Your task to perform on an android device: open chrome privacy settings Image 0: 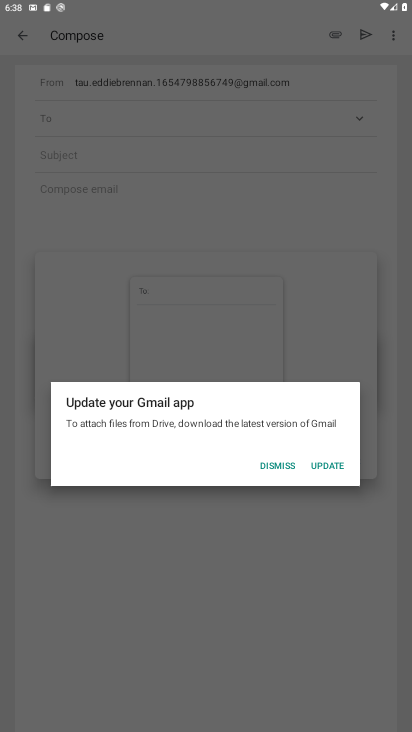
Step 0: press home button
Your task to perform on an android device: open chrome privacy settings Image 1: 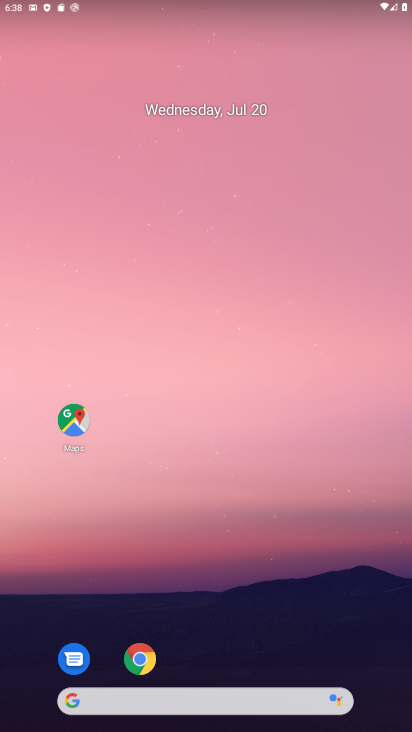
Step 1: click (144, 655)
Your task to perform on an android device: open chrome privacy settings Image 2: 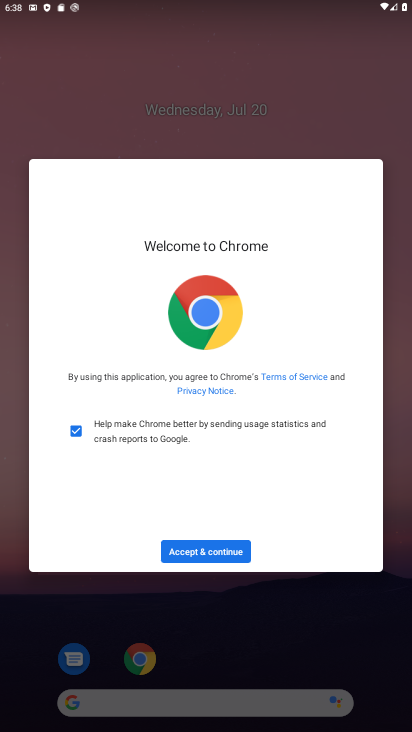
Step 2: click (192, 556)
Your task to perform on an android device: open chrome privacy settings Image 3: 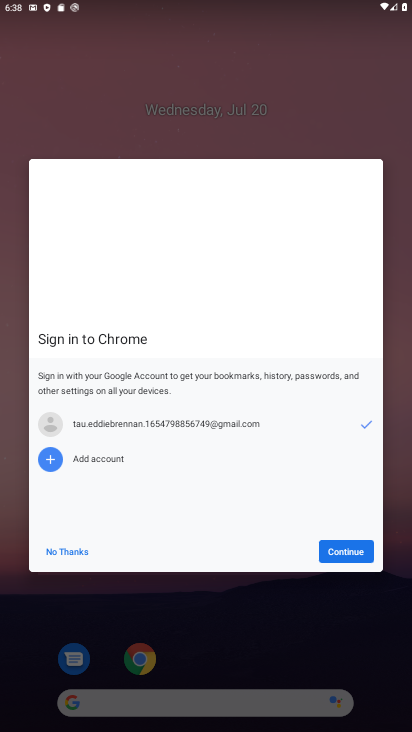
Step 3: click (337, 553)
Your task to perform on an android device: open chrome privacy settings Image 4: 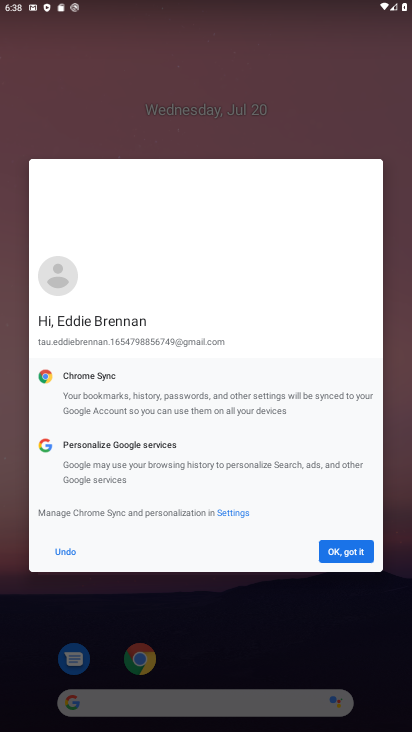
Step 4: click (337, 553)
Your task to perform on an android device: open chrome privacy settings Image 5: 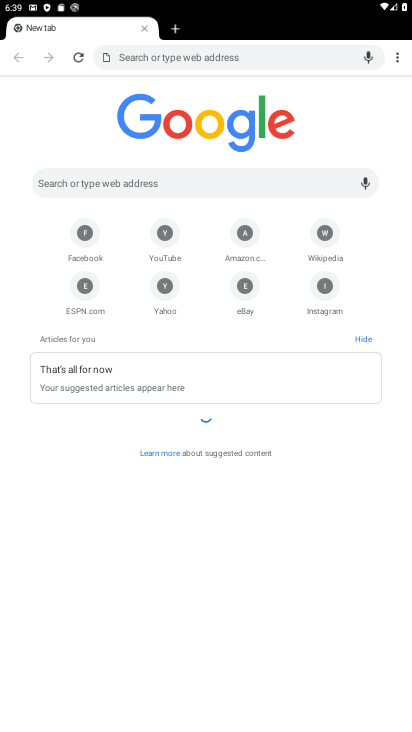
Step 5: click (394, 58)
Your task to perform on an android device: open chrome privacy settings Image 6: 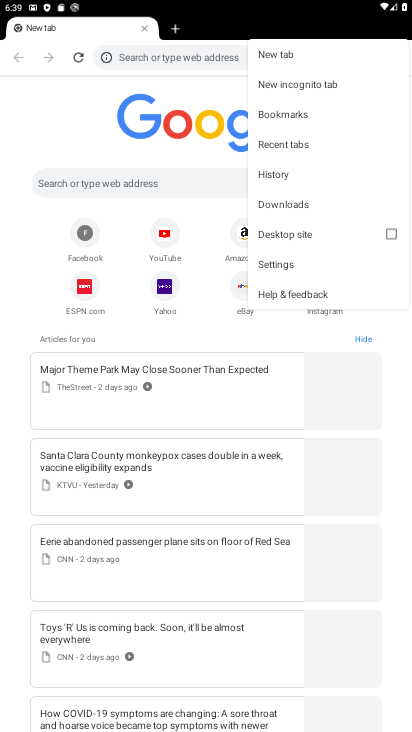
Step 6: click (279, 261)
Your task to perform on an android device: open chrome privacy settings Image 7: 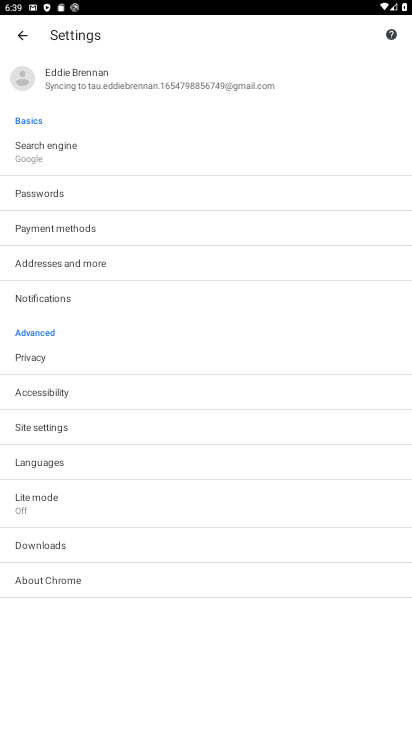
Step 7: click (21, 354)
Your task to perform on an android device: open chrome privacy settings Image 8: 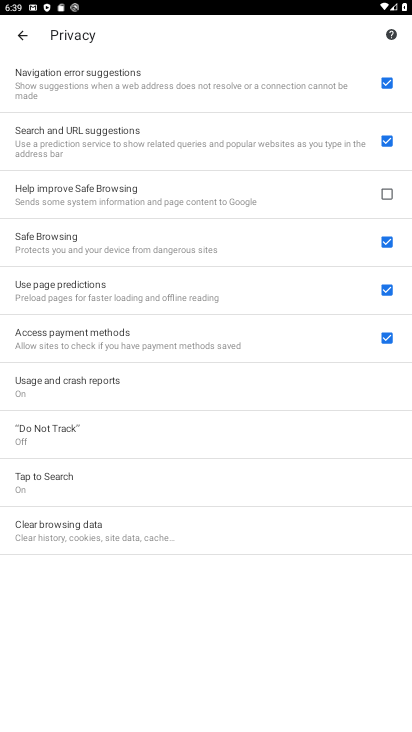
Step 8: task complete